Your task to perform on an android device: turn pop-ups off in chrome Image 0: 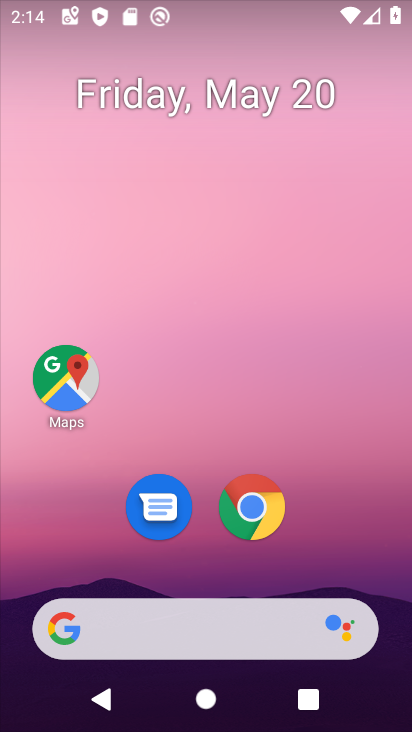
Step 0: click (256, 515)
Your task to perform on an android device: turn pop-ups off in chrome Image 1: 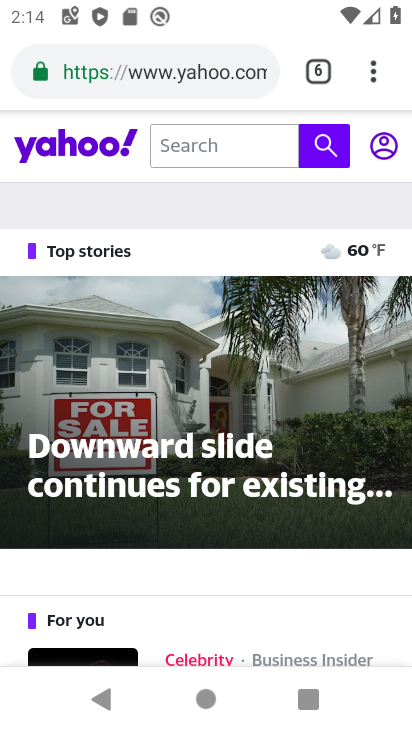
Step 1: click (372, 75)
Your task to perform on an android device: turn pop-ups off in chrome Image 2: 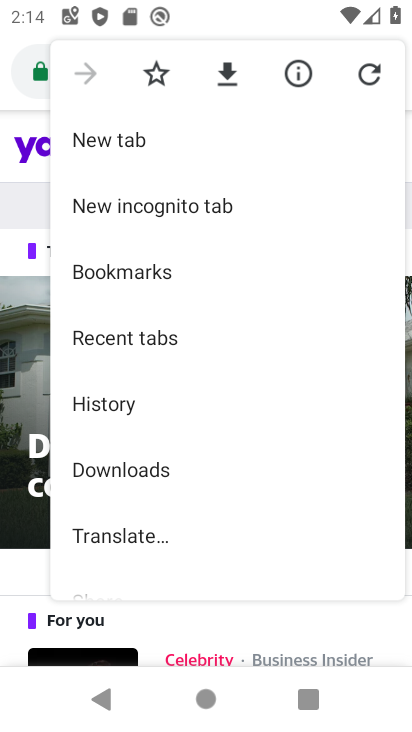
Step 2: drag from (142, 516) to (180, 138)
Your task to perform on an android device: turn pop-ups off in chrome Image 3: 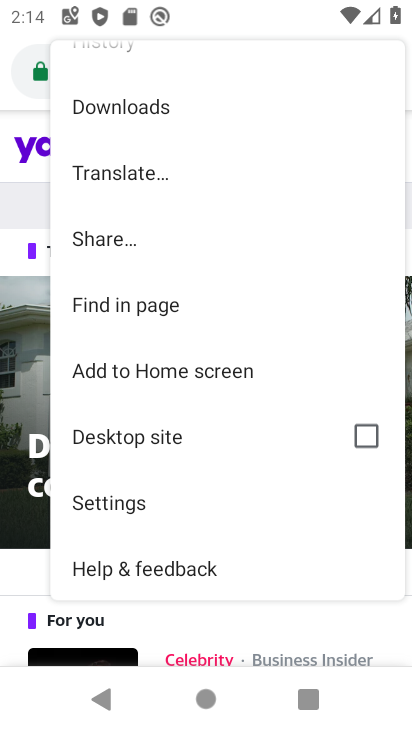
Step 3: click (104, 501)
Your task to perform on an android device: turn pop-ups off in chrome Image 4: 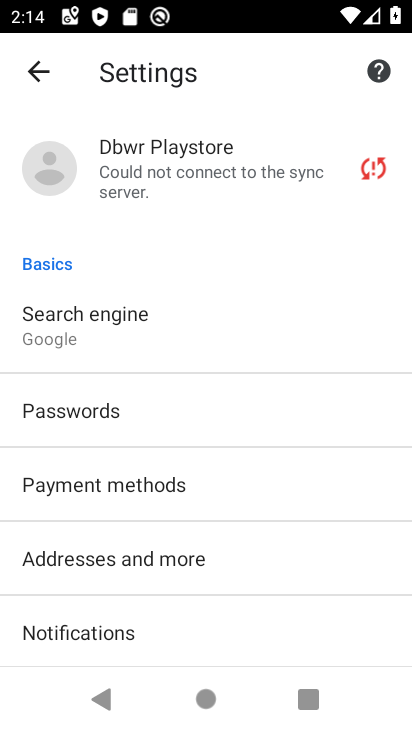
Step 4: drag from (100, 620) to (109, 306)
Your task to perform on an android device: turn pop-ups off in chrome Image 5: 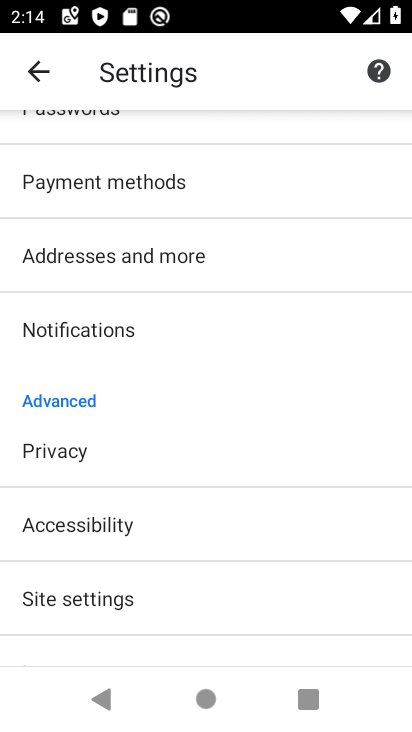
Step 5: click (74, 593)
Your task to perform on an android device: turn pop-ups off in chrome Image 6: 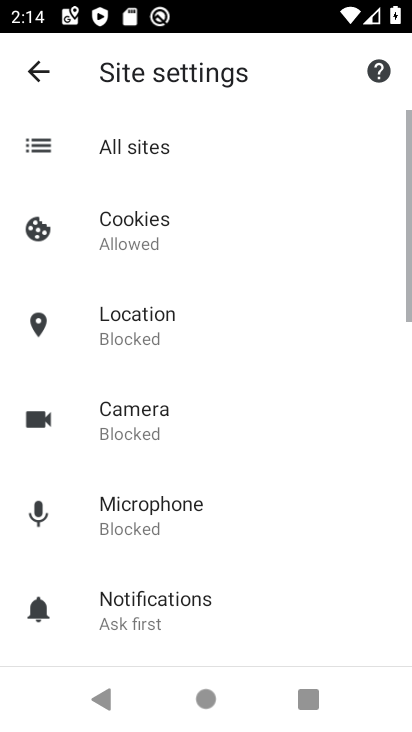
Step 6: drag from (139, 489) to (142, 165)
Your task to perform on an android device: turn pop-ups off in chrome Image 7: 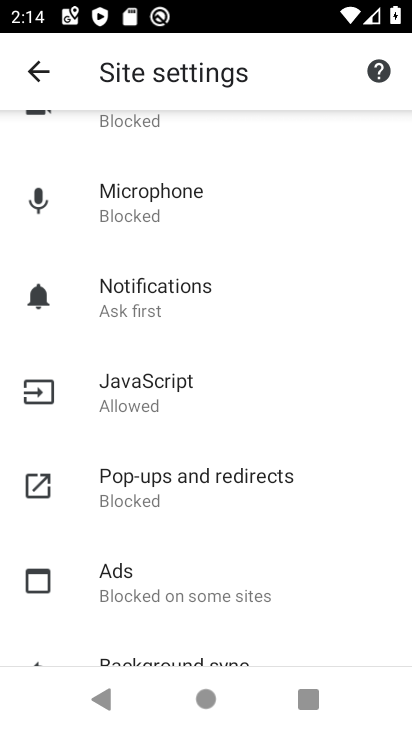
Step 7: drag from (170, 547) to (173, 170)
Your task to perform on an android device: turn pop-ups off in chrome Image 8: 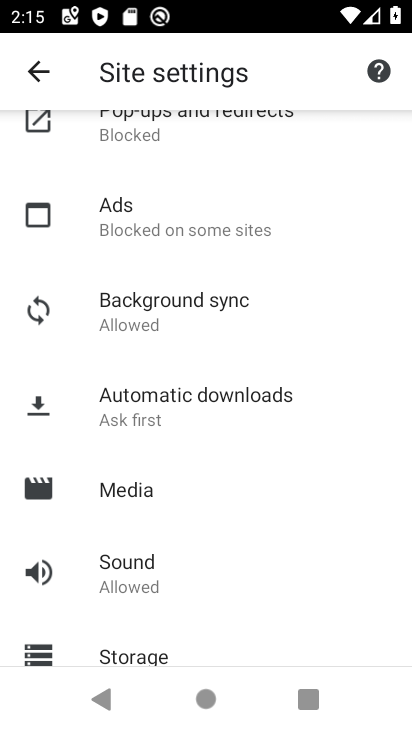
Step 8: drag from (157, 529) to (179, 156)
Your task to perform on an android device: turn pop-ups off in chrome Image 9: 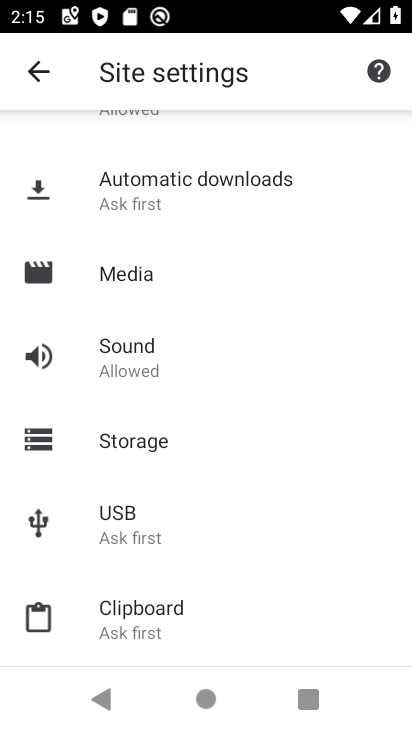
Step 9: drag from (186, 233) to (190, 569)
Your task to perform on an android device: turn pop-ups off in chrome Image 10: 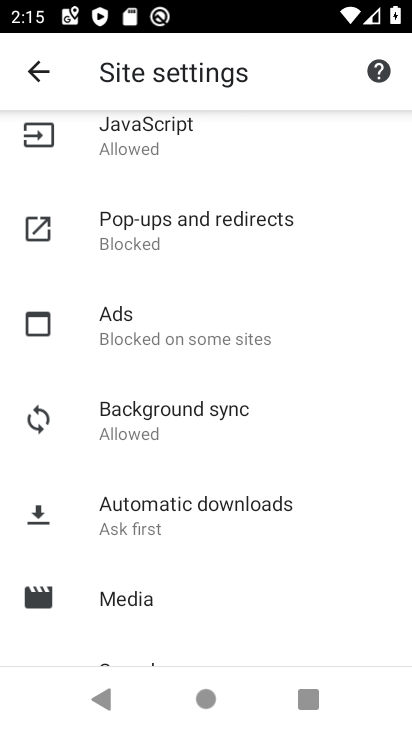
Step 10: click (196, 216)
Your task to perform on an android device: turn pop-ups off in chrome Image 11: 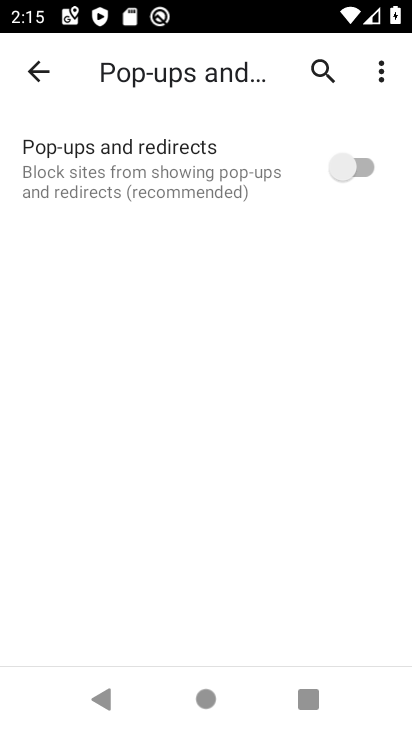
Step 11: task complete